Your task to perform on an android device: star an email in the gmail app Image 0: 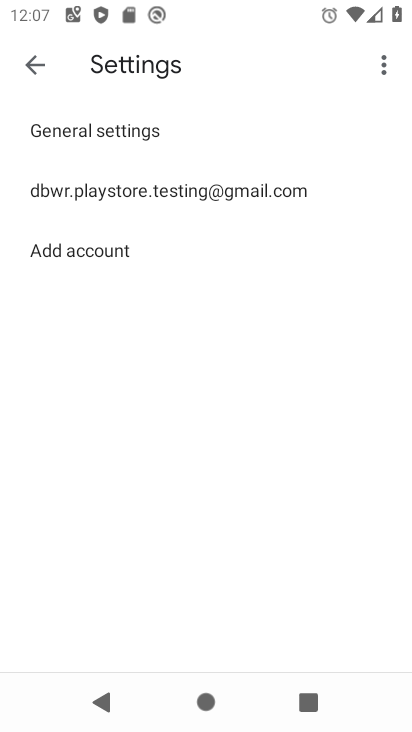
Step 0: press home button
Your task to perform on an android device: star an email in the gmail app Image 1: 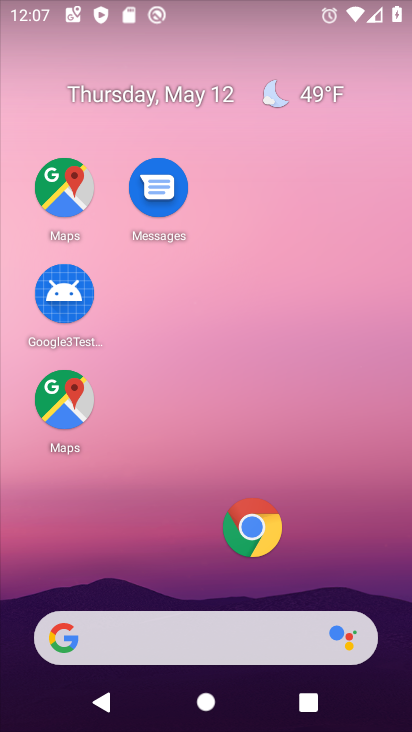
Step 1: drag from (228, 584) to (155, 29)
Your task to perform on an android device: star an email in the gmail app Image 2: 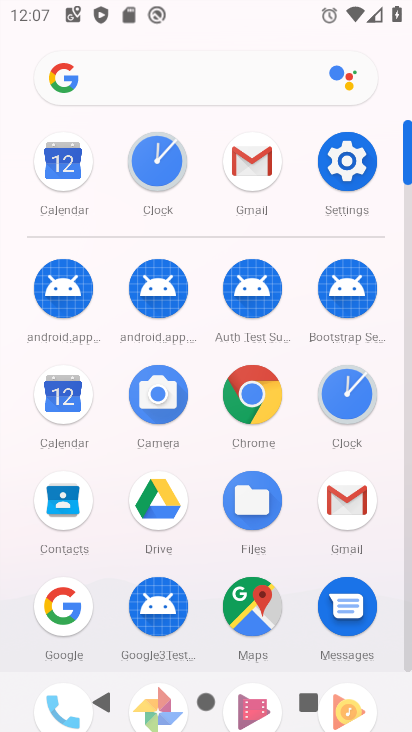
Step 2: click (329, 485)
Your task to perform on an android device: star an email in the gmail app Image 3: 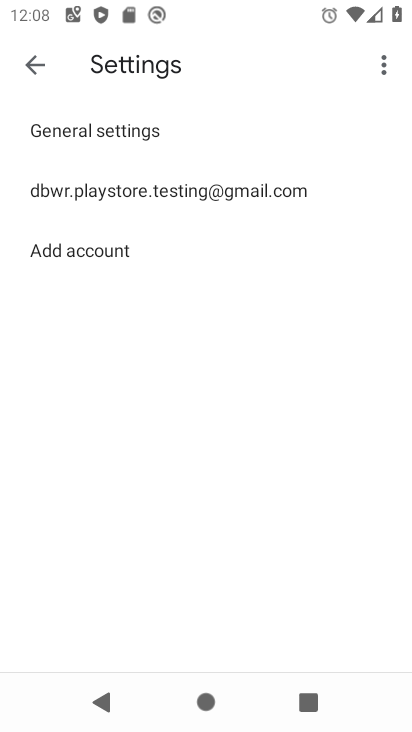
Step 3: click (29, 65)
Your task to perform on an android device: star an email in the gmail app Image 4: 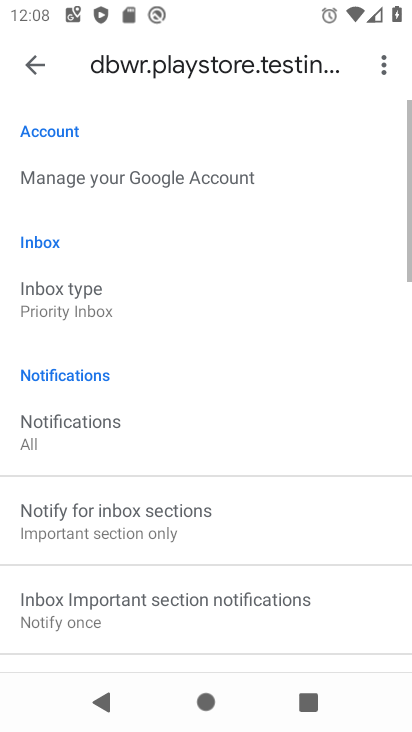
Step 4: click (29, 70)
Your task to perform on an android device: star an email in the gmail app Image 5: 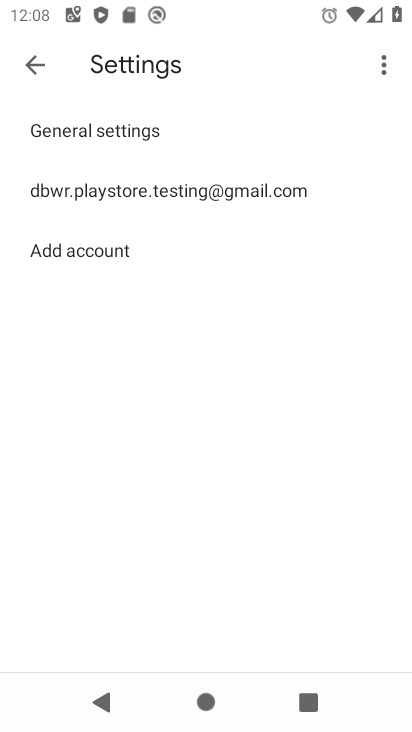
Step 5: click (36, 62)
Your task to perform on an android device: star an email in the gmail app Image 6: 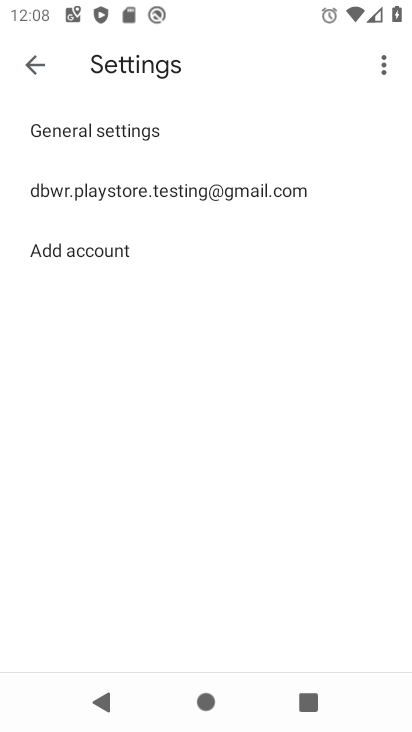
Step 6: click (35, 60)
Your task to perform on an android device: star an email in the gmail app Image 7: 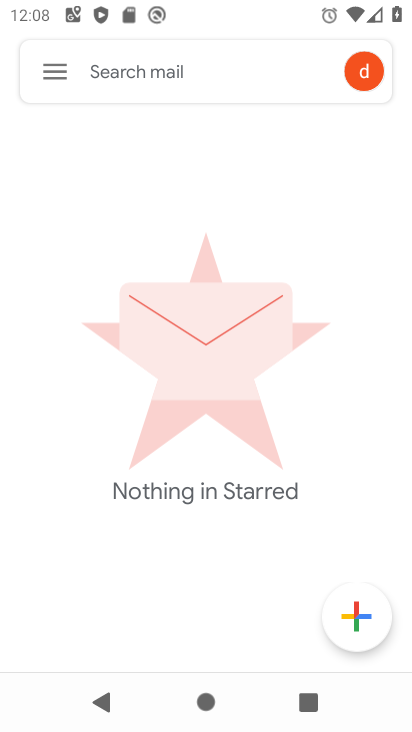
Step 7: click (38, 63)
Your task to perform on an android device: star an email in the gmail app Image 8: 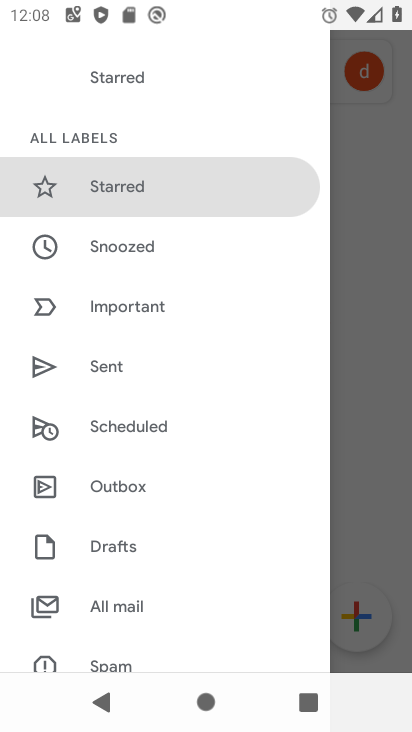
Step 8: click (115, 590)
Your task to perform on an android device: star an email in the gmail app Image 9: 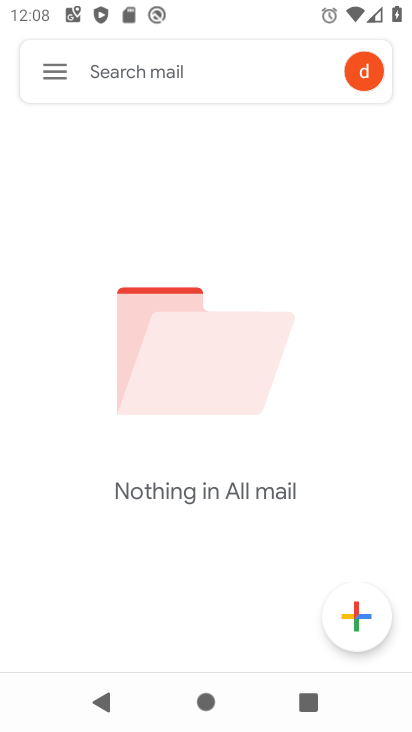
Step 9: task complete